Your task to perform on an android device: open sync settings in chrome Image 0: 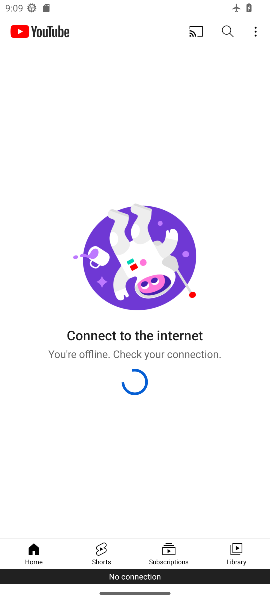
Step 0: press home button
Your task to perform on an android device: open sync settings in chrome Image 1: 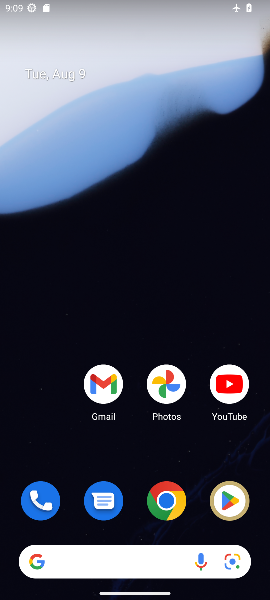
Step 1: click (163, 503)
Your task to perform on an android device: open sync settings in chrome Image 2: 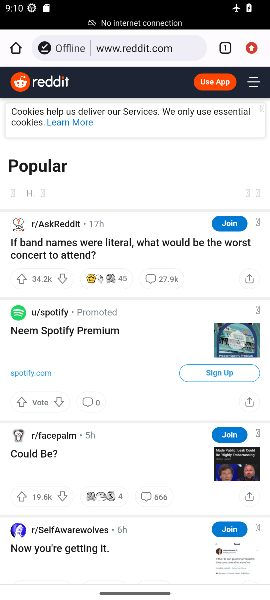
Step 2: task complete